Your task to perform on an android device: What's on my calendar today? Image 0: 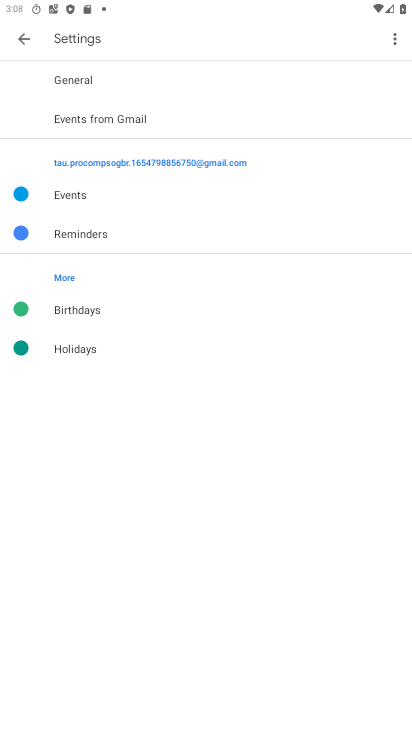
Step 0: press back button
Your task to perform on an android device: What's on my calendar today? Image 1: 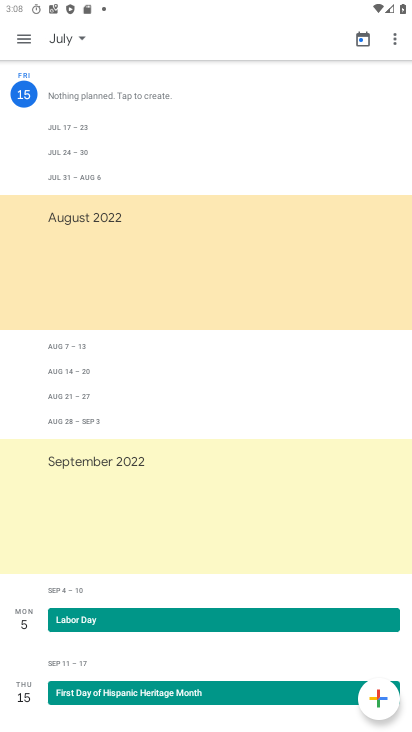
Step 1: press back button
Your task to perform on an android device: What's on my calendar today? Image 2: 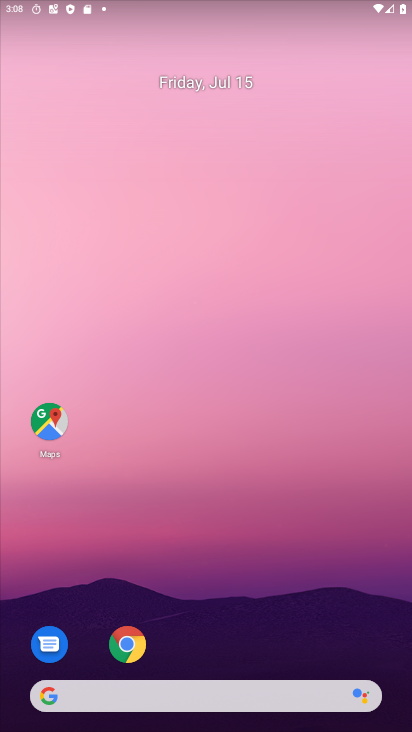
Step 2: drag from (176, 620) to (245, 63)
Your task to perform on an android device: What's on my calendar today? Image 3: 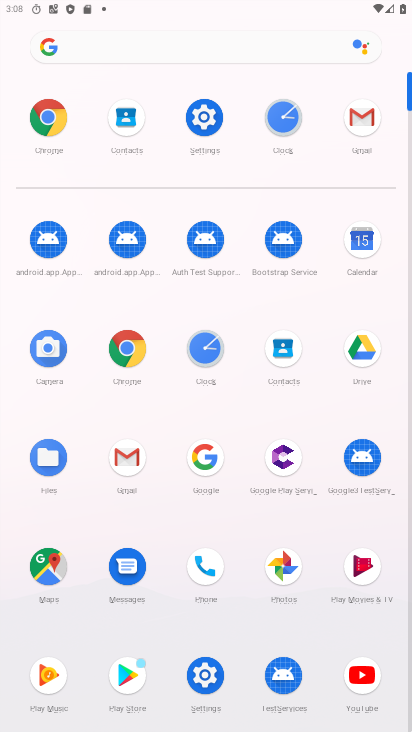
Step 3: click (366, 233)
Your task to perform on an android device: What's on my calendar today? Image 4: 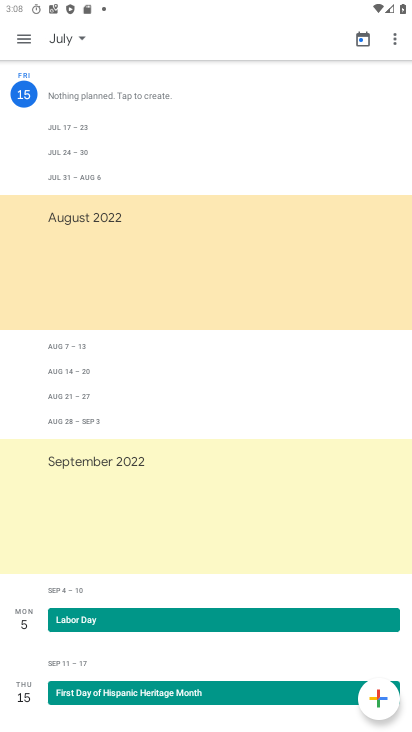
Step 4: task complete